Your task to perform on an android device: Open Yahoo.com Image 0: 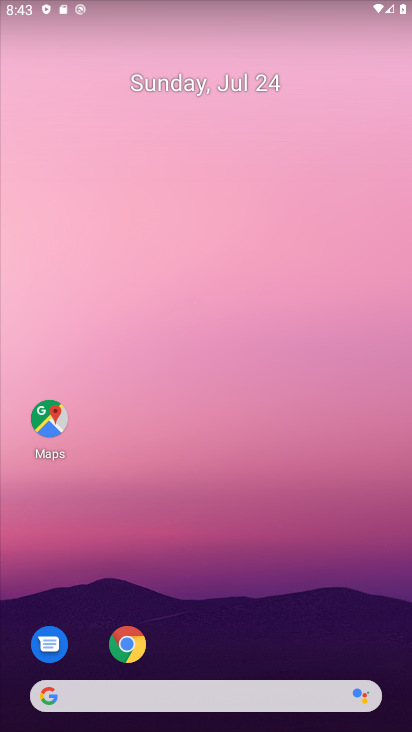
Step 0: drag from (291, 678) to (275, 262)
Your task to perform on an android device: Open Yahoo.com Image 1: 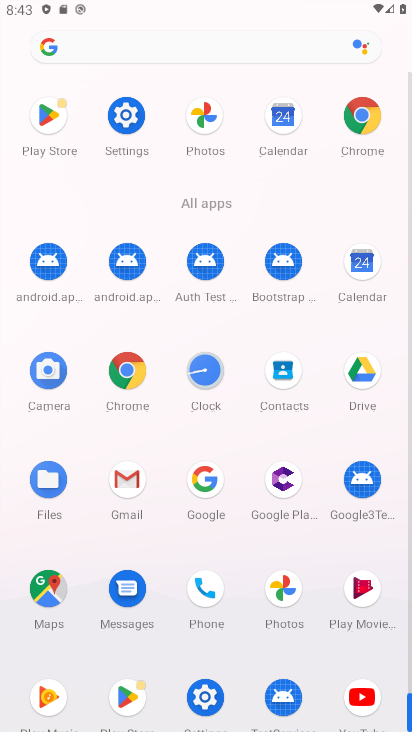
Step 1: click (362, 117)
Your task to perform on an android device: Open Yahoo.com Image 2: 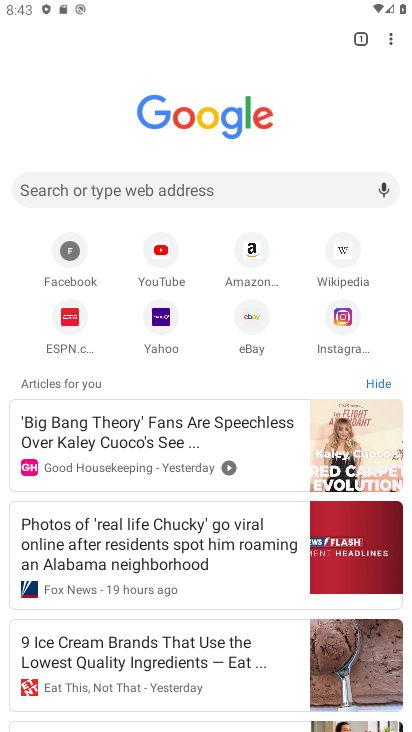
Step 2: click (161, 322)
Your task to perform on an android device: Open Yahoo.com Image 3: 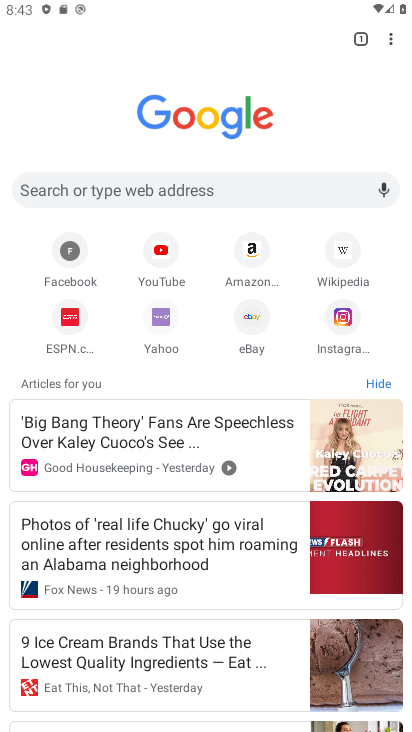
Step 3: click (161, 322)
Your task to perform on an android device: Open Yahoo.com Image 4: 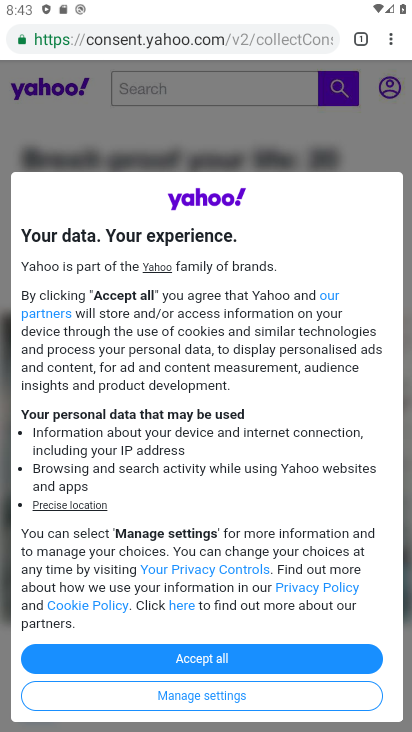
Step 4: task complete